Your task to perform on an android device: turn notification dots off Image 0: 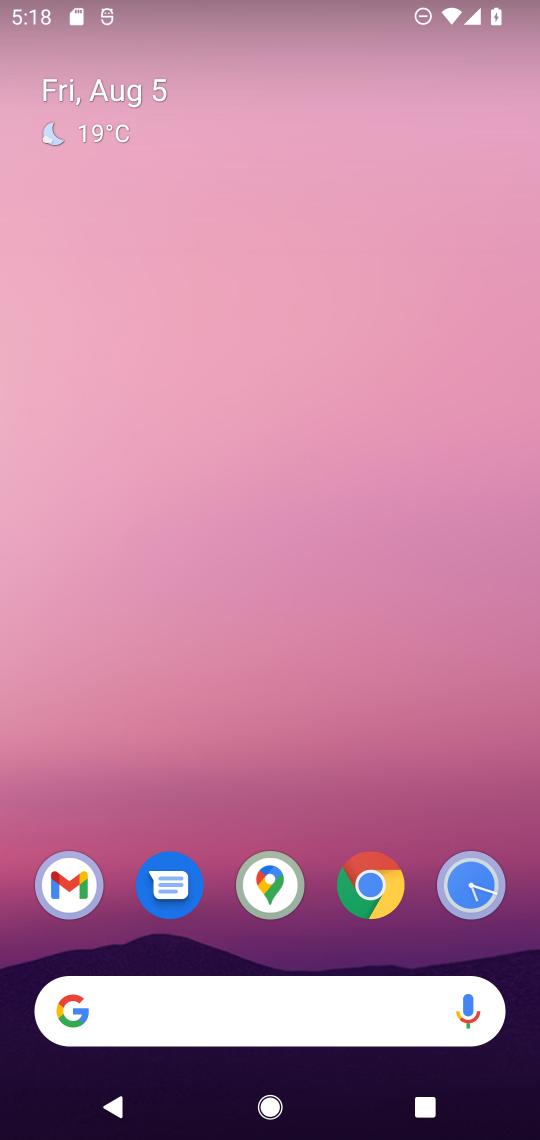
Step 0: drag from (323, 924) to (298, 115)
Your task to perform on an android device: turn notification dots off Image 1: 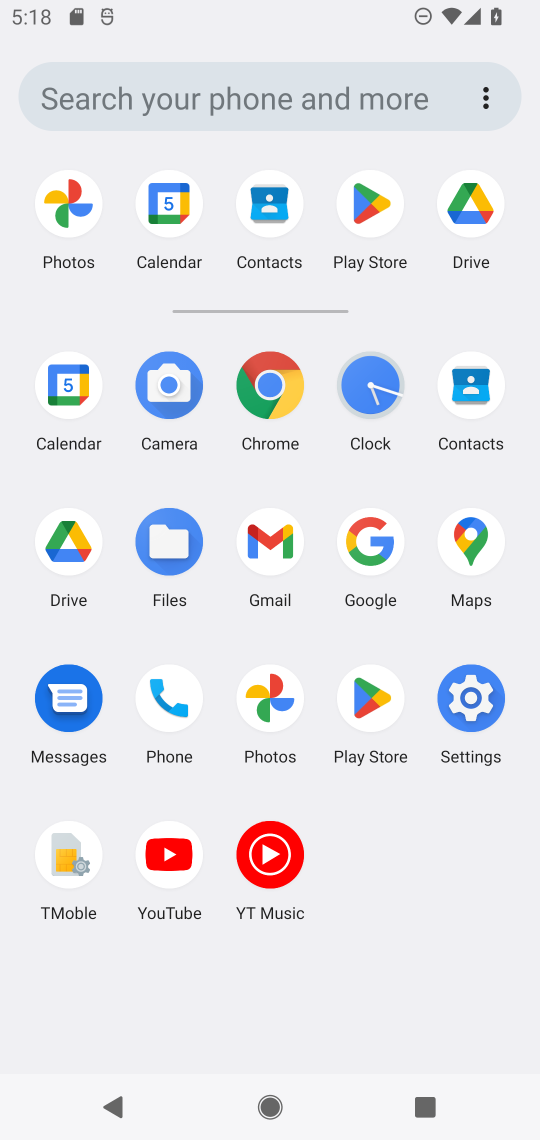
Step 1: click (478, 699)
Your task to perform on an android device: turn notification dots off Image 2: 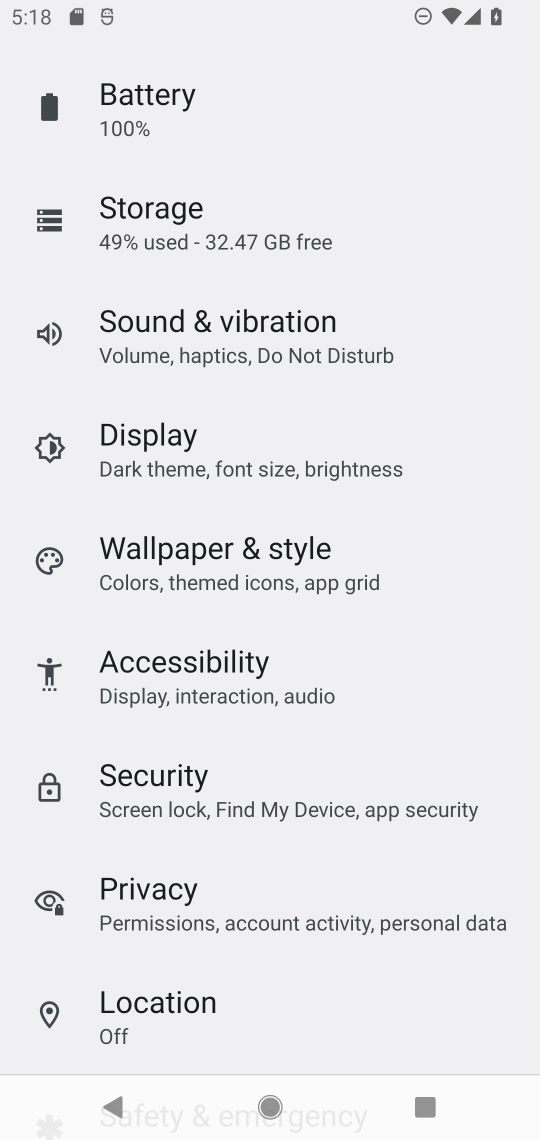
Step 2: drag from (252, 267) to (224, 893)
Your task to perform on an android device: turn notification dots off Image 3: 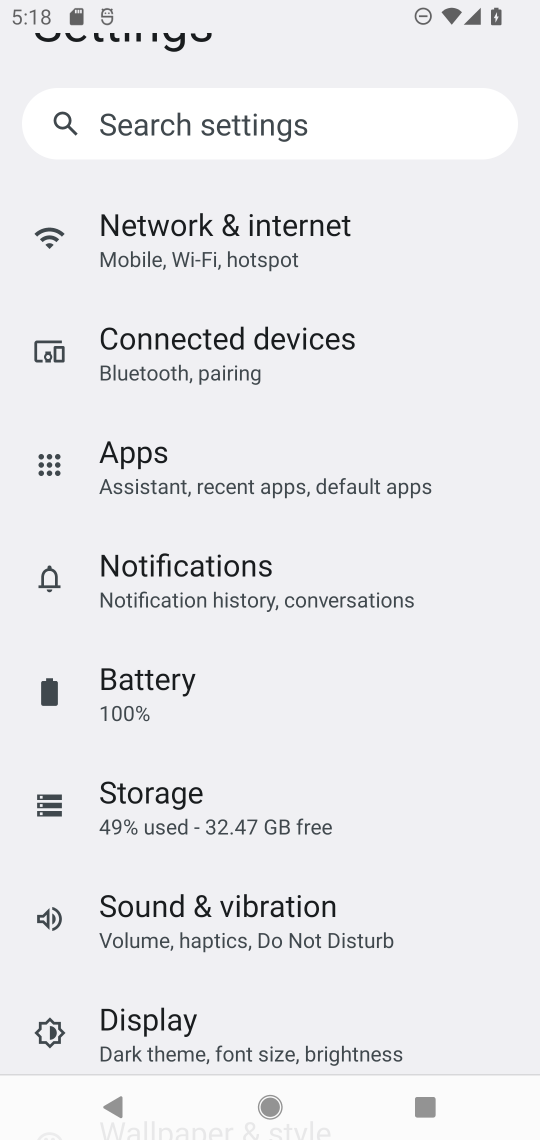
Step 3: drag from (231, 291) to (226, 725)
Your task to perform on an android device: turn notification dots off Image 4: 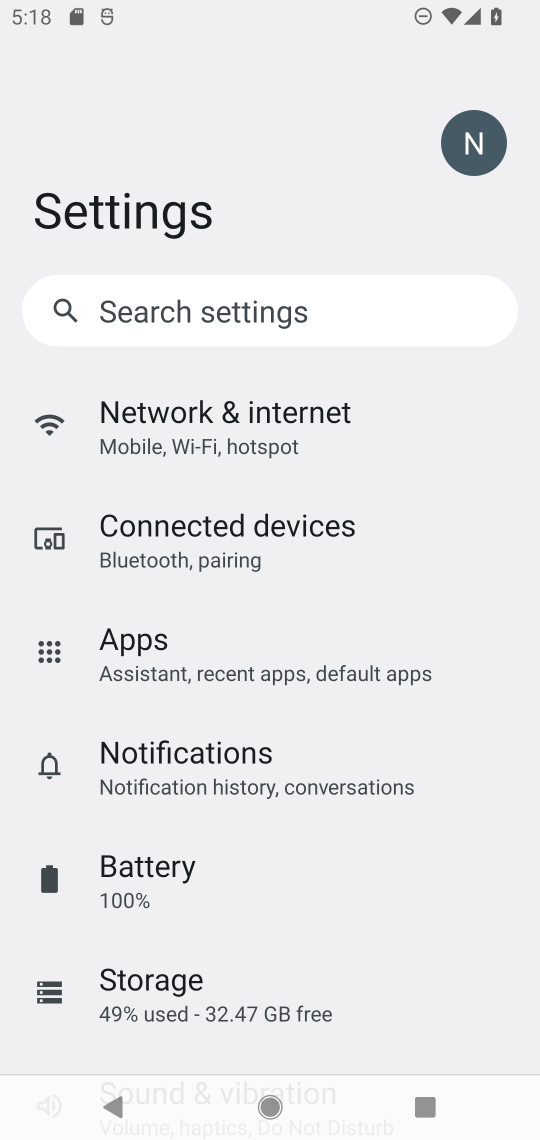
Step 4: click (186, 765)
Your task to perform on an android device: turn notification dots off Image 5: 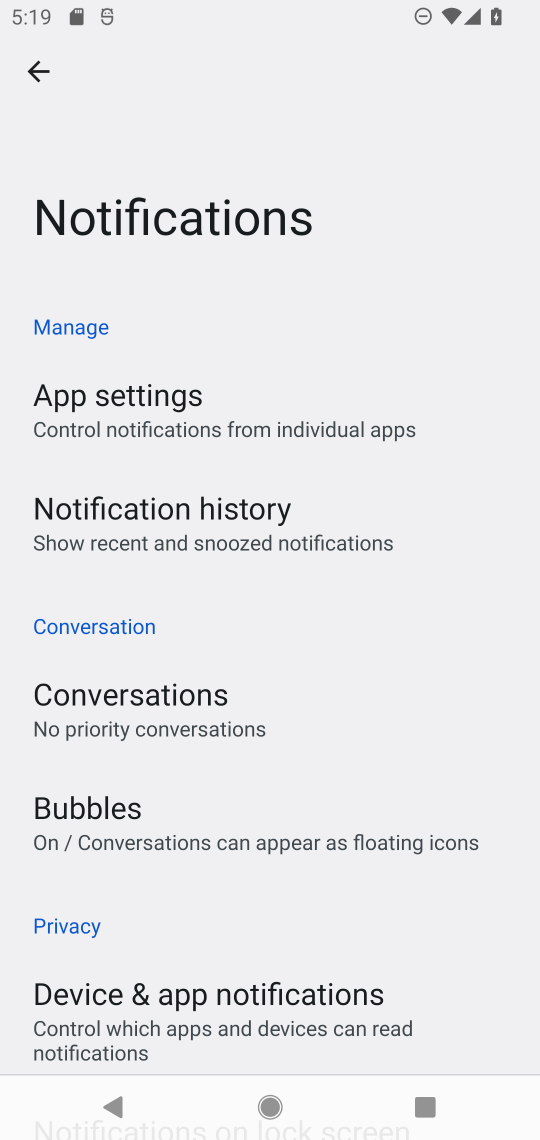
Step 5: task complete